Your task to perform on an android device: turn on bluetooth scan Image 0: 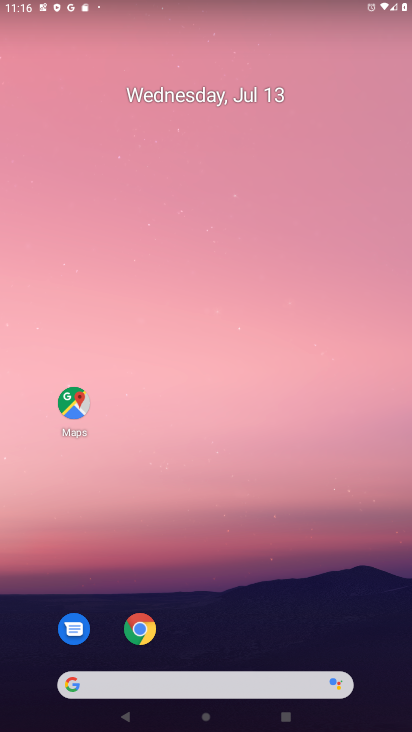
Step 0: drag from (281, 599) to (241, 304)
Your task to perform on an android device: turn on bluetooth scan Image 1: 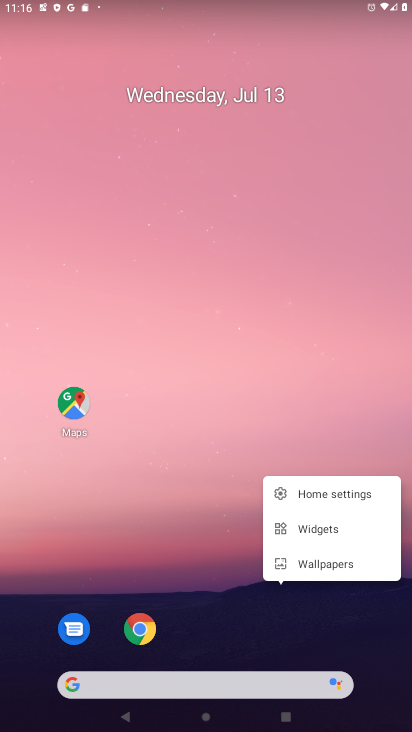
Step 1: click (227, 332)
Your task to perform on an android device: turn on bluetooth scan Image 2: 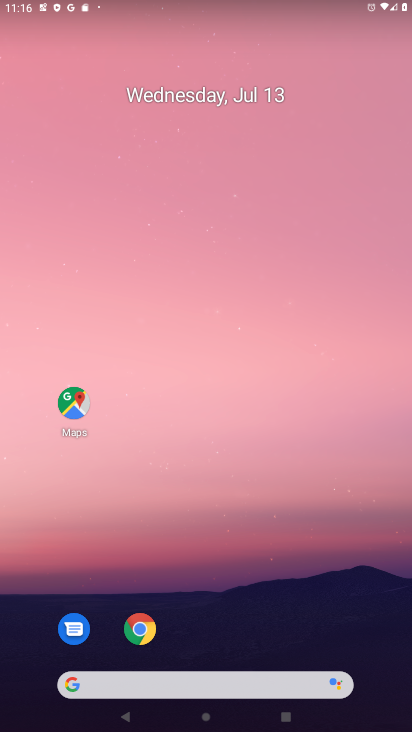
Step 2: drag from (213, 587) to (188, 165)
Your task to perform on an android device: turn on bluetooth scan Image 3: 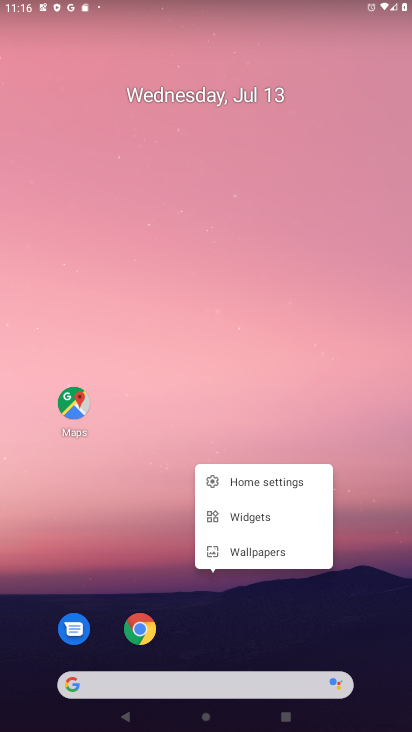
Step 3: click (183, 288)
Your task to perform on an android device: turn on bluetooth scan Image 4: 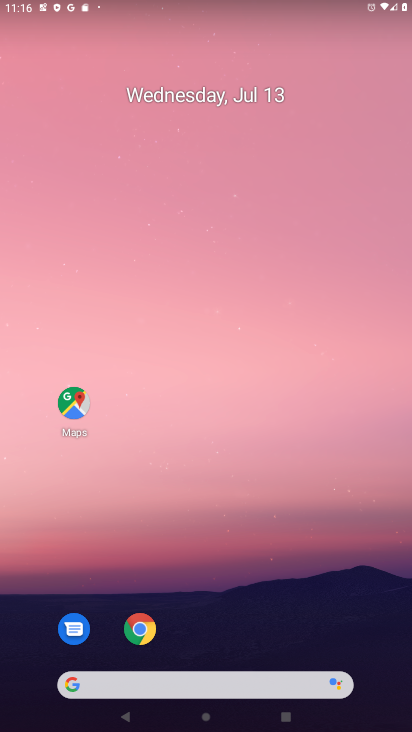
Step 4: drag from (241, 628) to (141, 30)
Your task to perform on an android device: turn on bluetooth scan Image 5: 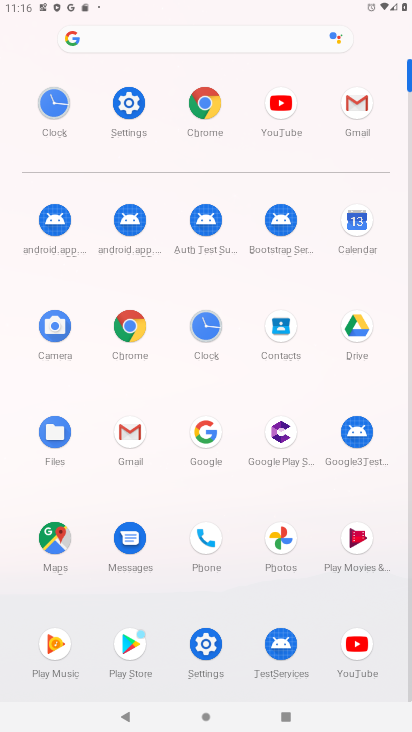
Step 5: click (137, 114)
Your task to perform on an android device: turn on bluetooth scan Image 6: 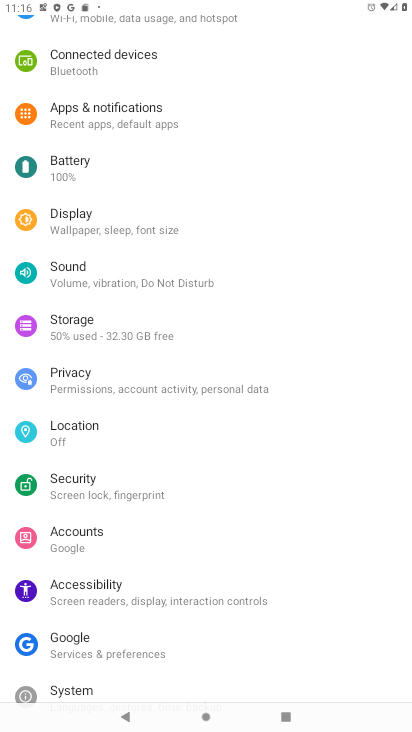
Step 6: click (216, 28)
Your task to perform on an android device: turn on bluetooth scan Image 7: 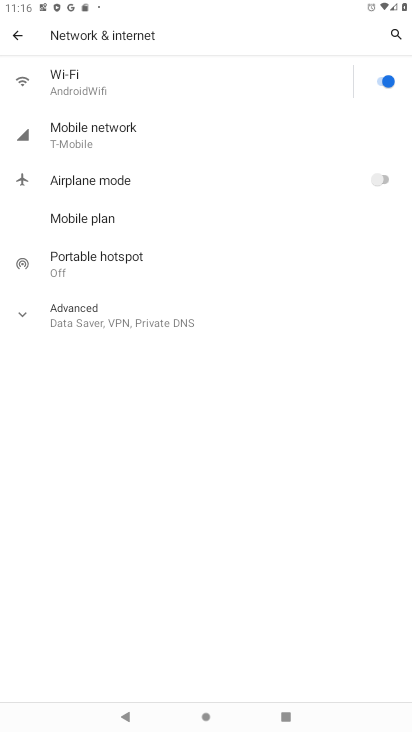
Step 7: click (13, 44)
Your task to perform on an android device: turn on bluetooth scan Image 8: 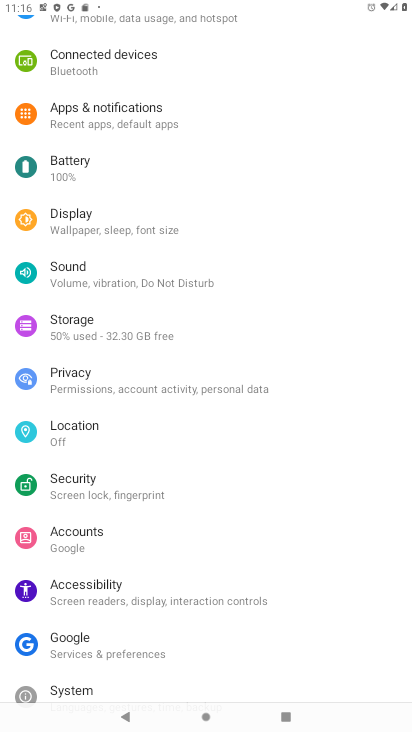
Step 8: drag from (102, 655) to (178, 334)
Your task to perform on an android device: turn on bluetooth scan Image 9: 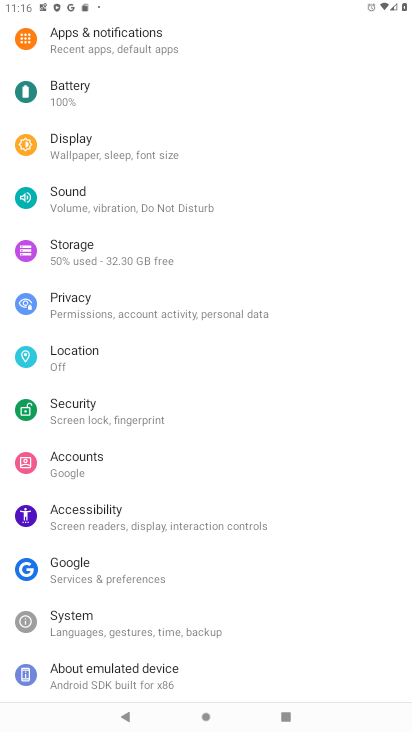
Step 9: click (162, 341)
Your task to perform on an android device: turn on bluetooth scan Image 10: 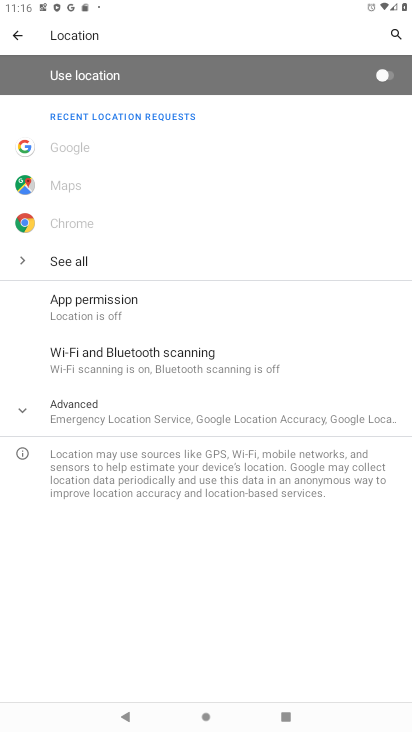
Step 10: click (175, 376)
Your task to perform on an android device: turn on bluetooth scan Image 11: 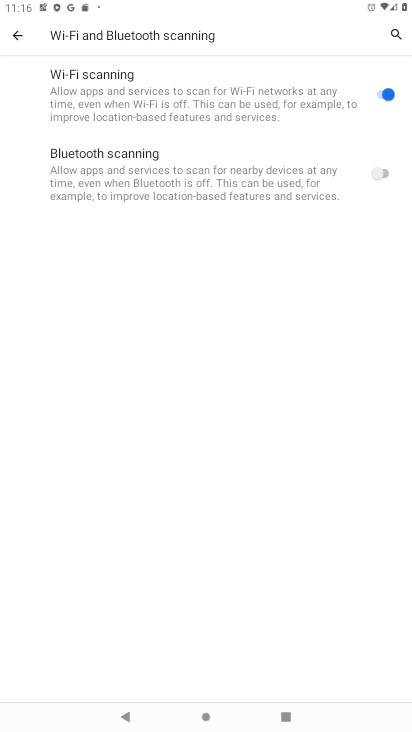
Step 11: click (361, 160)
Your task to perform on an android device: turn on bluetooth scan Image 12: 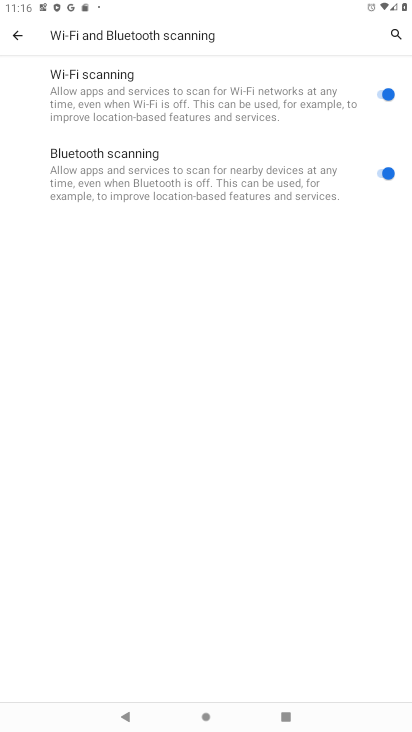
Step 12: task complete